Your task to perform on an android device: Go to settings Image 0: 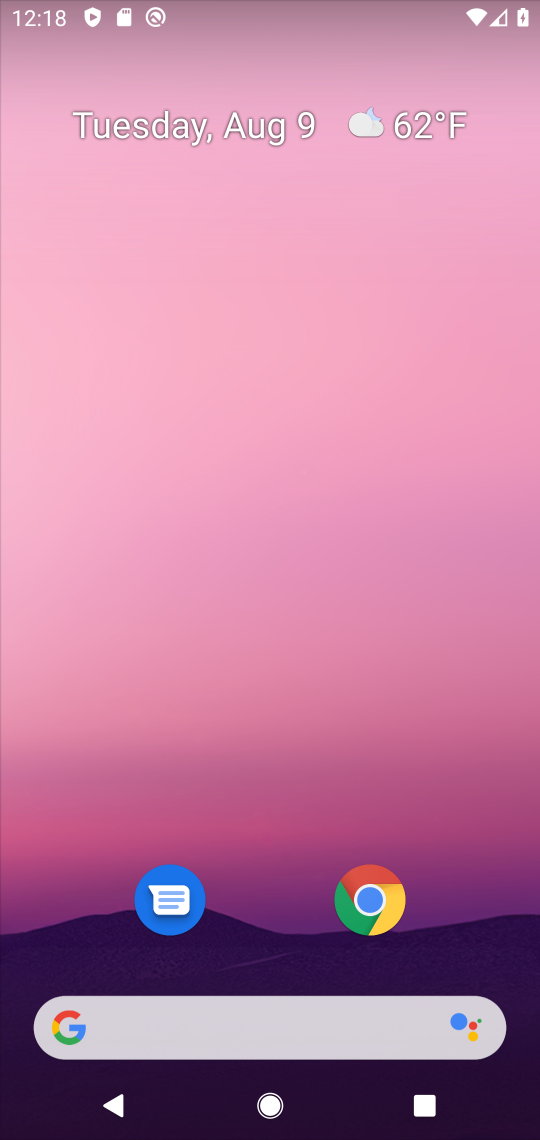
Step 0: drag from (202, 840) to (282, 34)
Your task to perform on an android device: Go to settings Image 1: 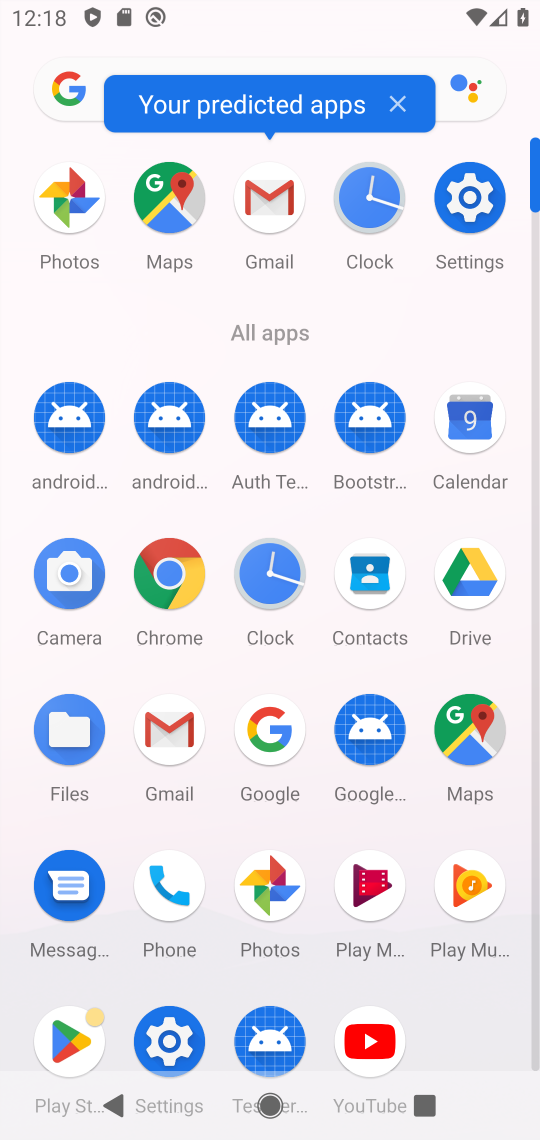
Step 1: click (460, 214)
Your task to perform on an android device: Go to settings Image 2: 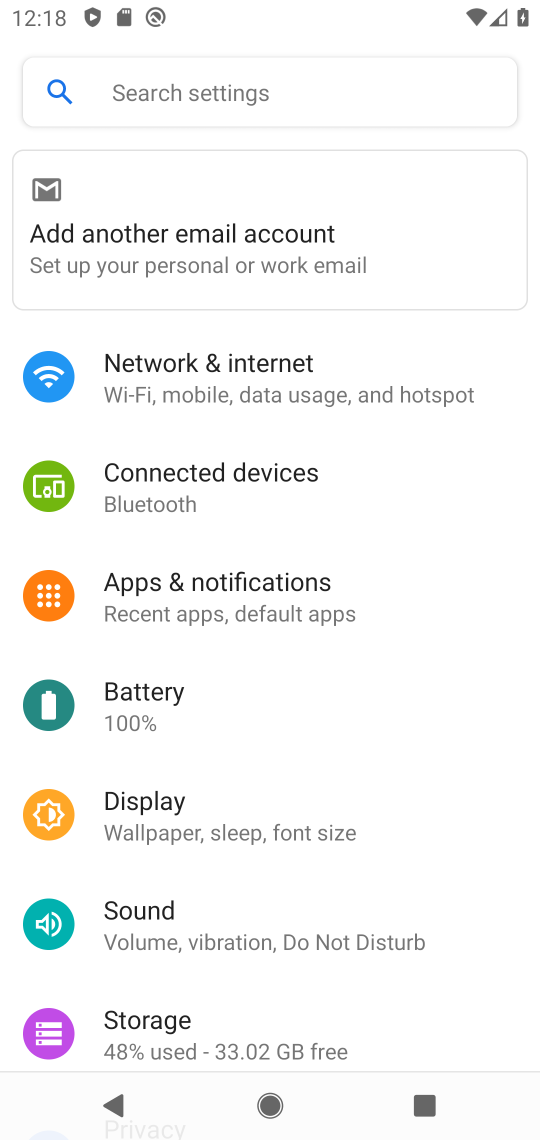
Step 2: task complete